Your task to perform on an android device: Open the web browser Image 0: 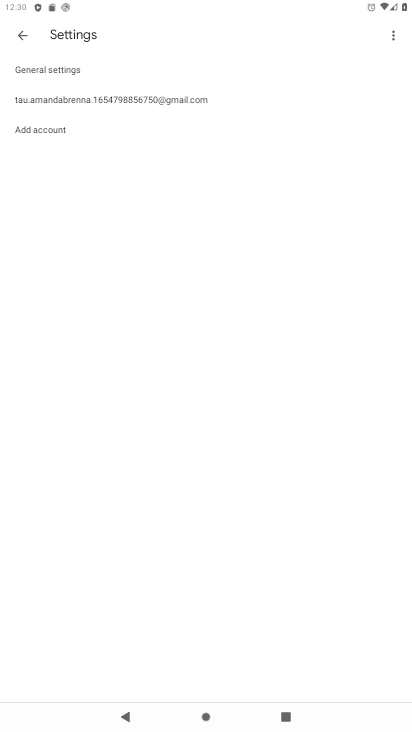
Step 0: press home button
Your task to perform on an android device: Open the web browser Image 1: 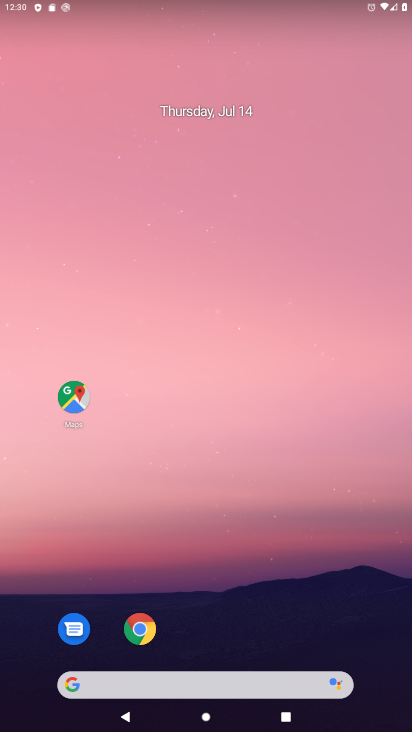
Step 1: drag from (200, 635) to (17, 88)
Your task to perform on an android device: Open the web browser Image 2: 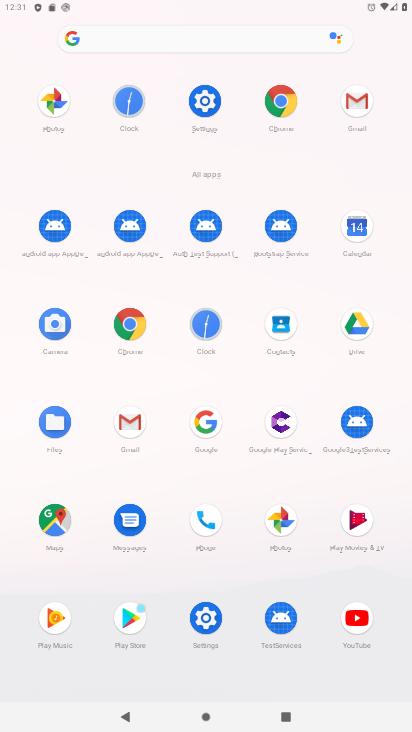
Step 2: click (205, 426)
Your task to perform on an android device: Open the web browser Image 3: 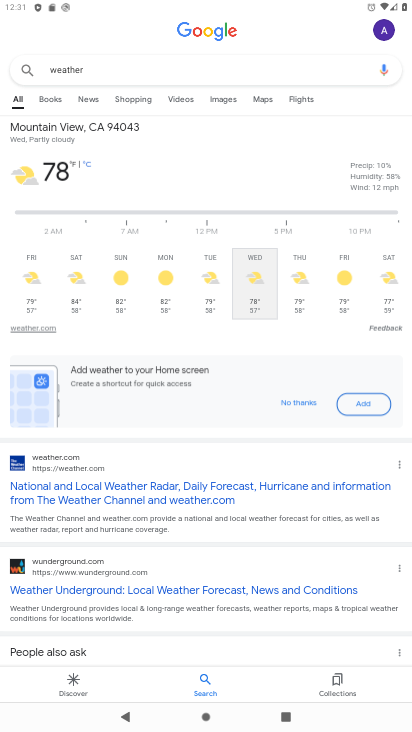
Step 3: task complete